Your task to perform on an android device: What's the weather going to be tomorrow? Image 0: 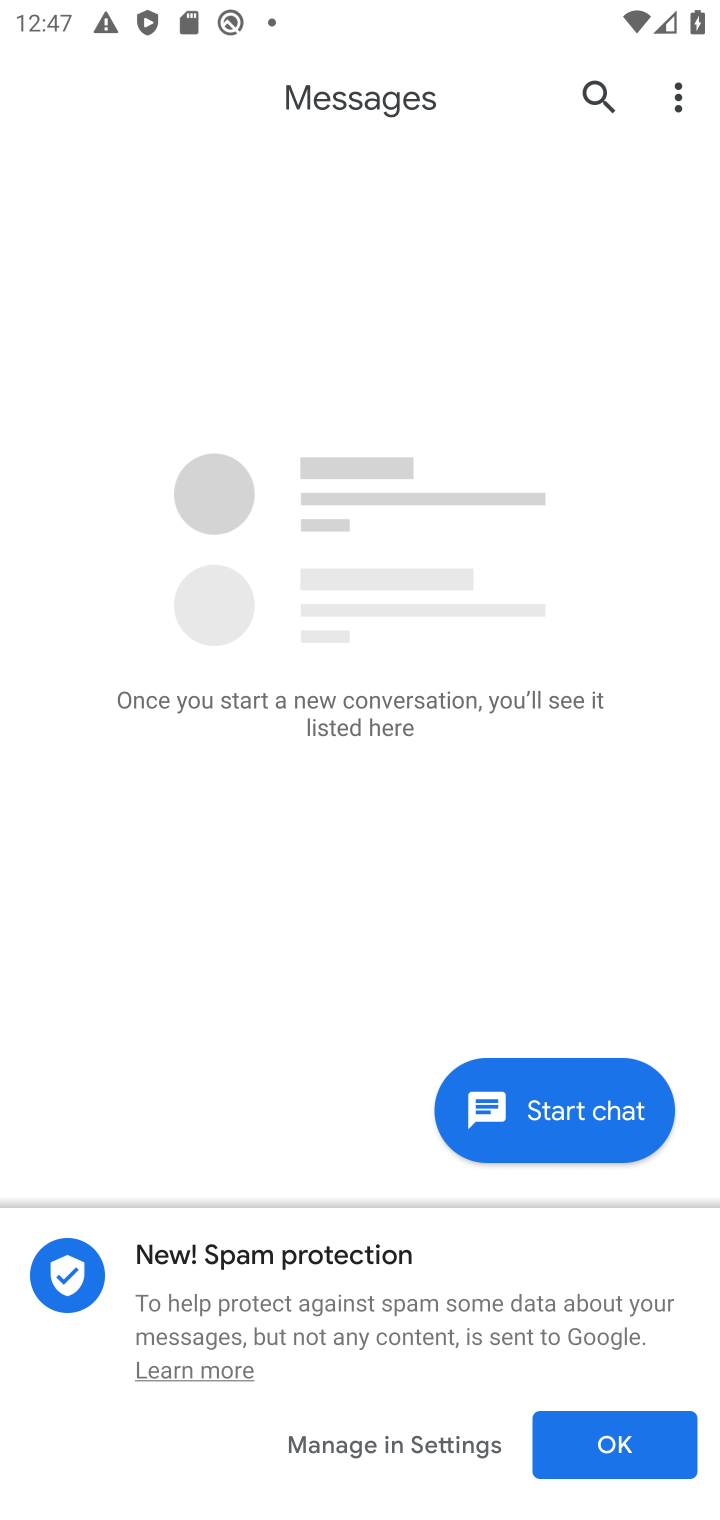
Step 0: press home button
Your task to perform on an android device: What's the weather going to be tomorrow? Image 1: 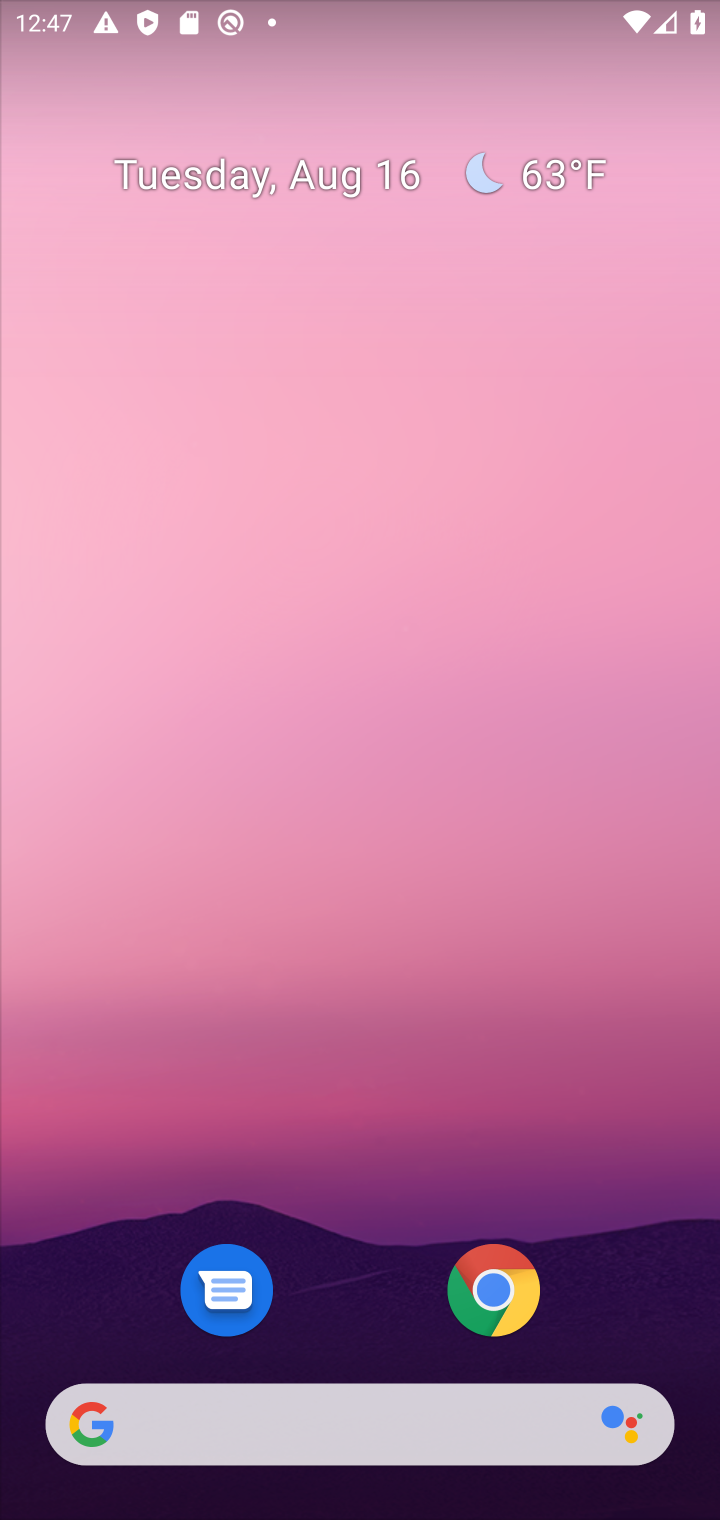
Step 1: click (187, 1391)
Your task to perform on an android device: What's the weather going to be tomorrow? Image 2: 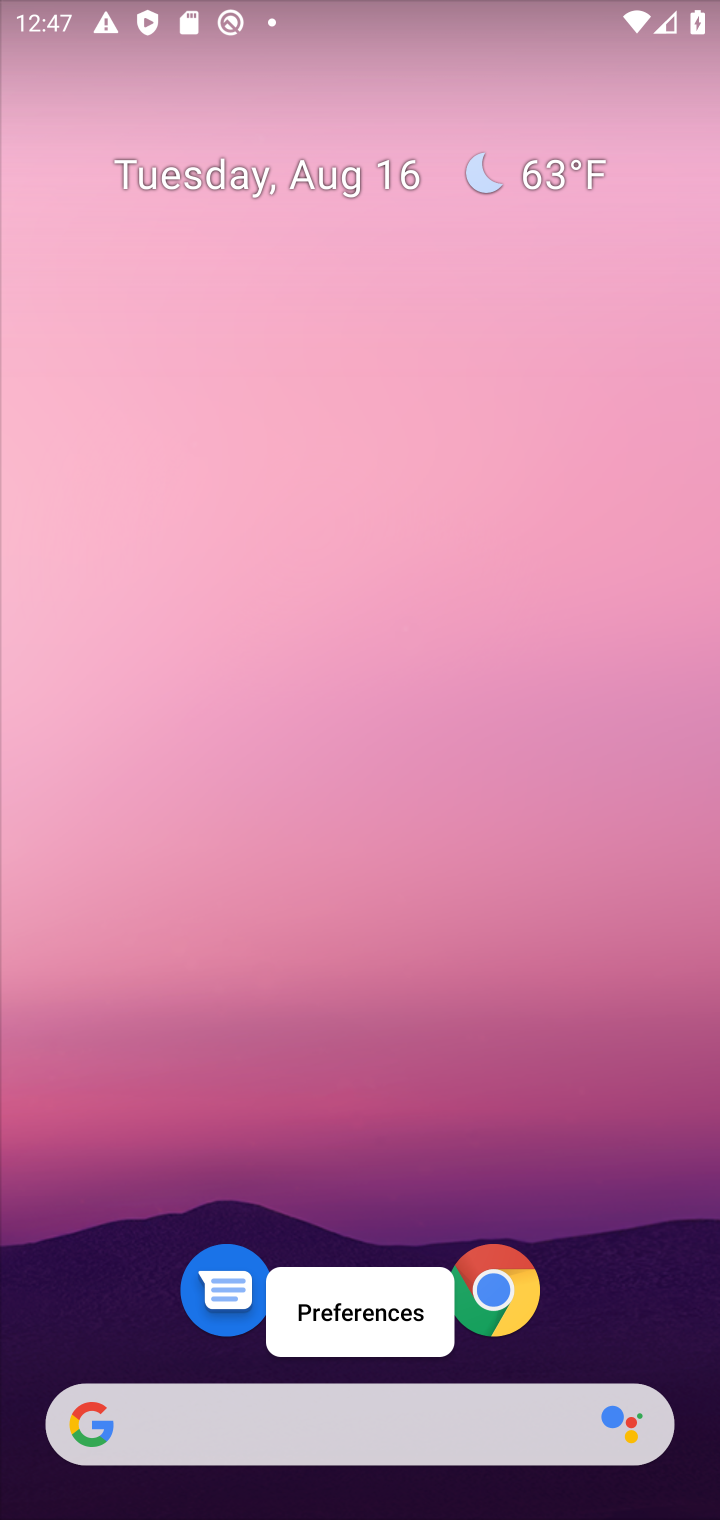
Step 2: click (167, 1426)
Your task to perform on an android device: What's the weather going to be tomorrow? Image 3: 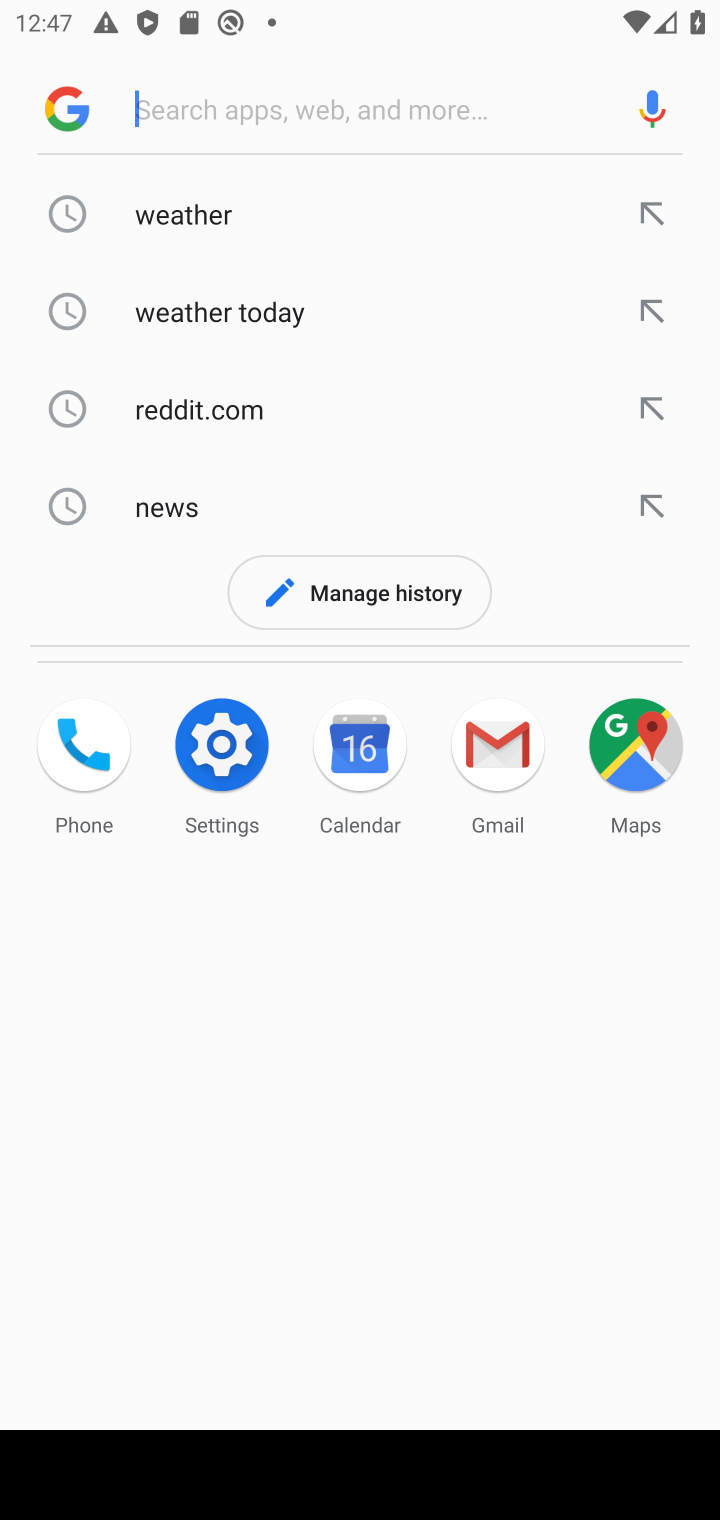
Step 3: click (164, 195)
Your task to perform on an android device: What's the weather going to be tomorrow? Image 4: 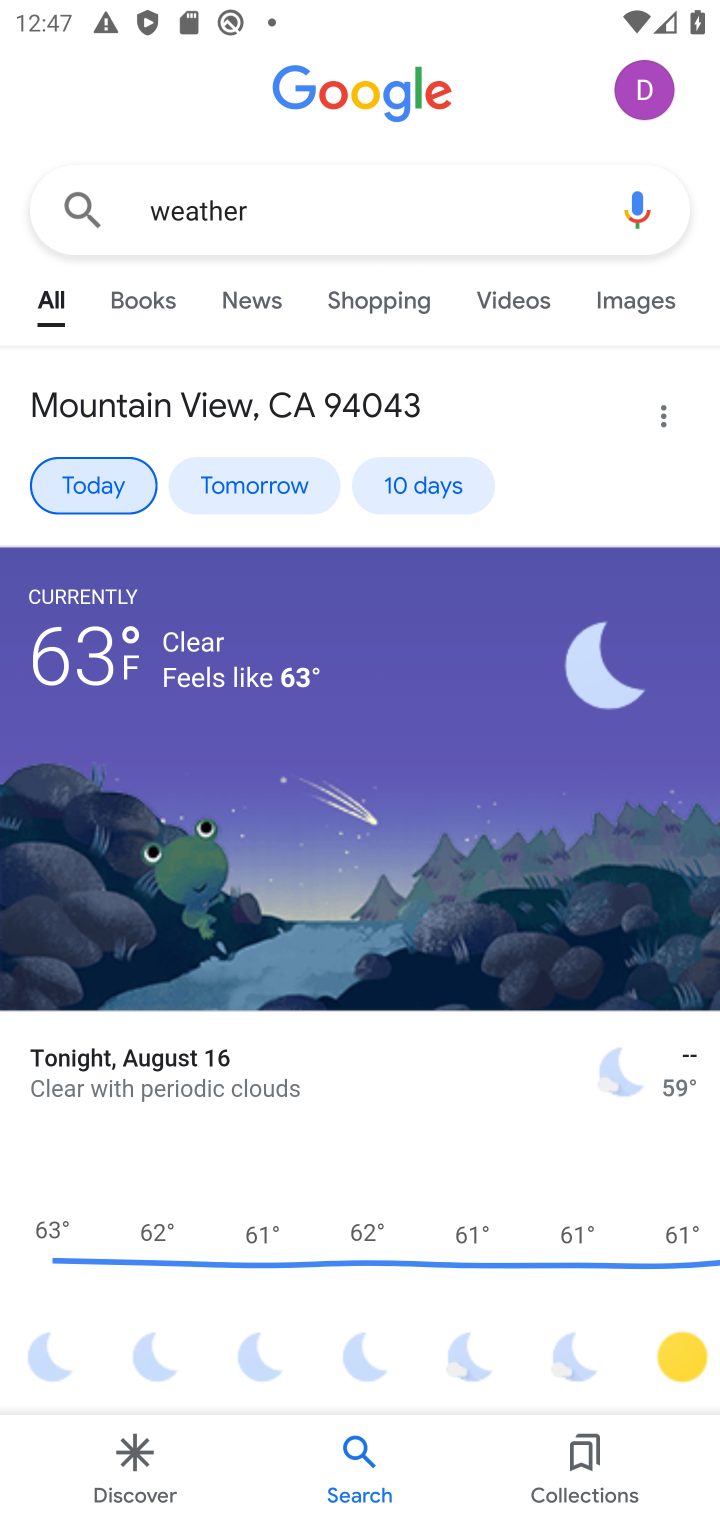
Step 4: click (269, 487)
Your task to perform on an android device: What's the weather going to be tomorrow? Image 5: 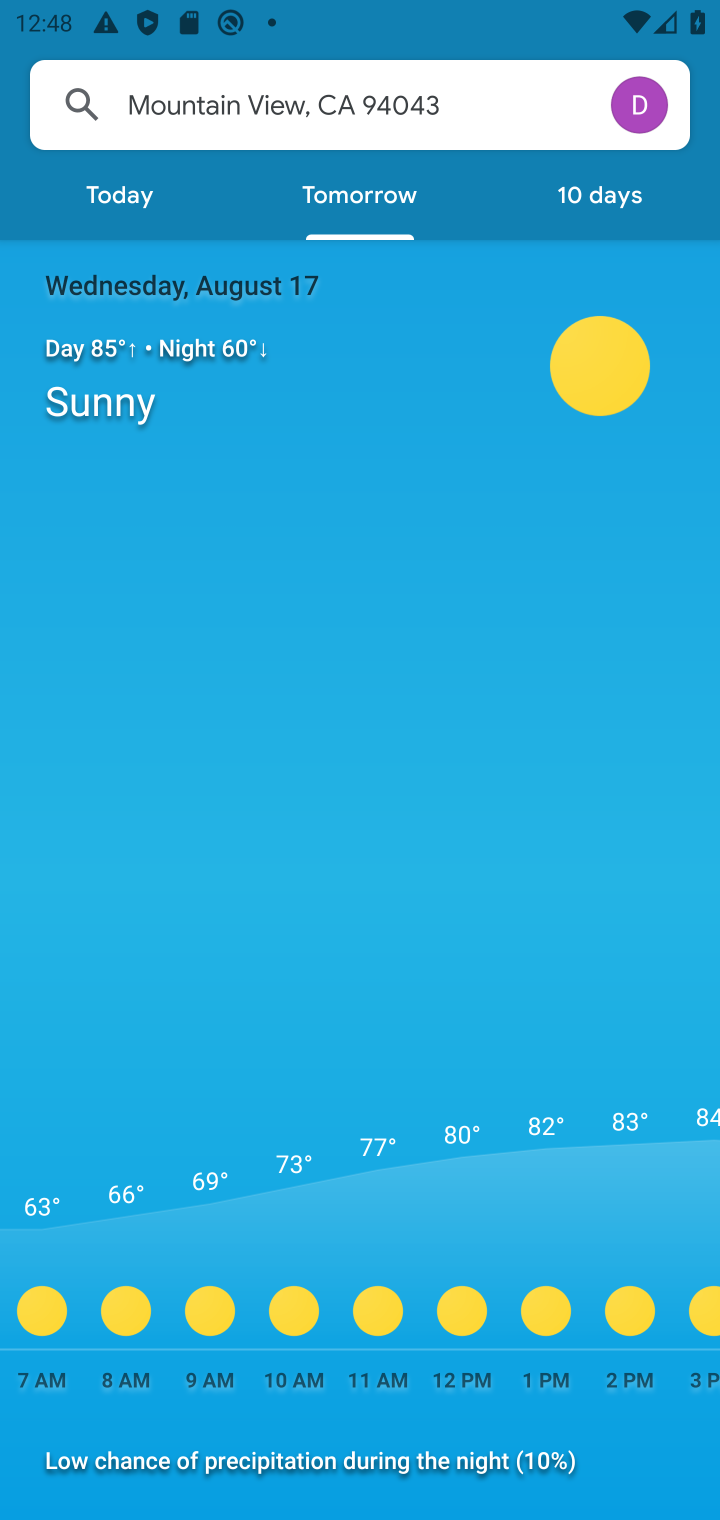
Step 5: task complete